Your task to perform on an android device: allow notifications from all sites in the chrome app Image 0: 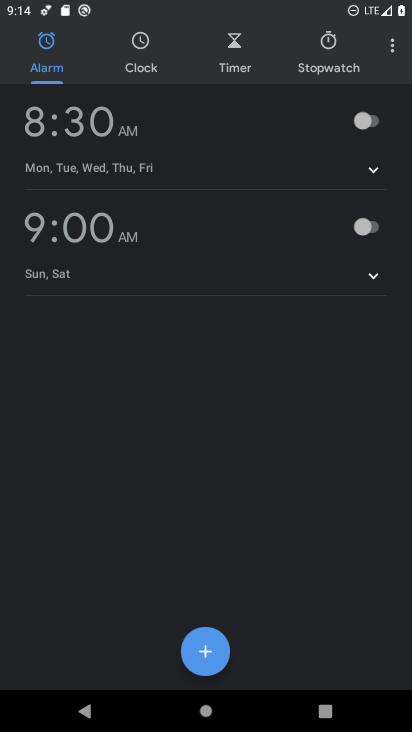
Step 0: press home button
Your task to perform on an android device: allow notifications from all sites in the chrome app Image 1: 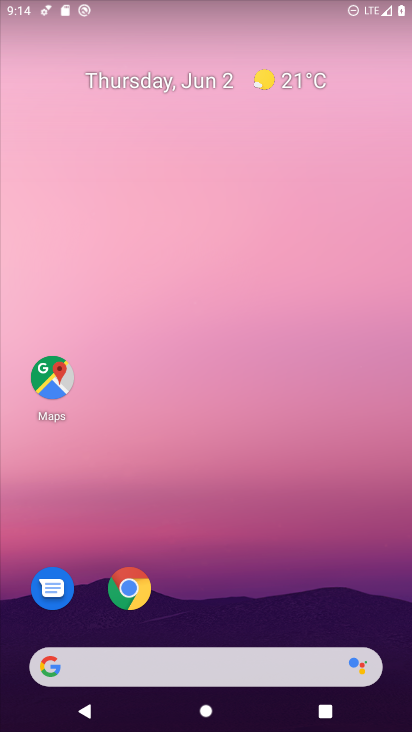
Step 1: drag from (262, 324) to (262, 284)
Your task to perform on an android device: allow notifications from all sites in the chrome app Image 2: 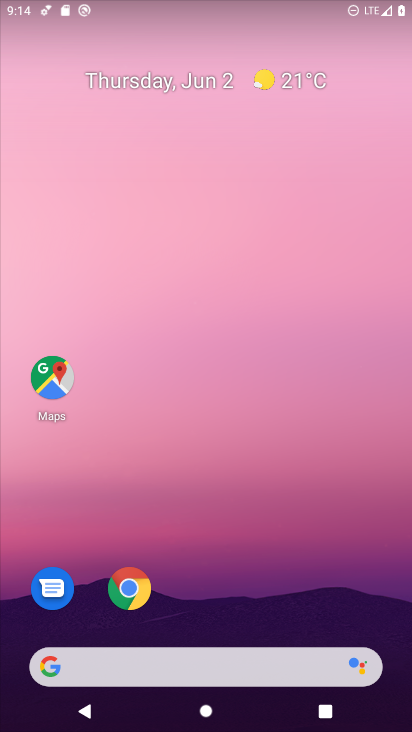
Step 2: click (135, 583)
Your task to perform on an android device: allow notifications from all sites in the chrome app Image 3: 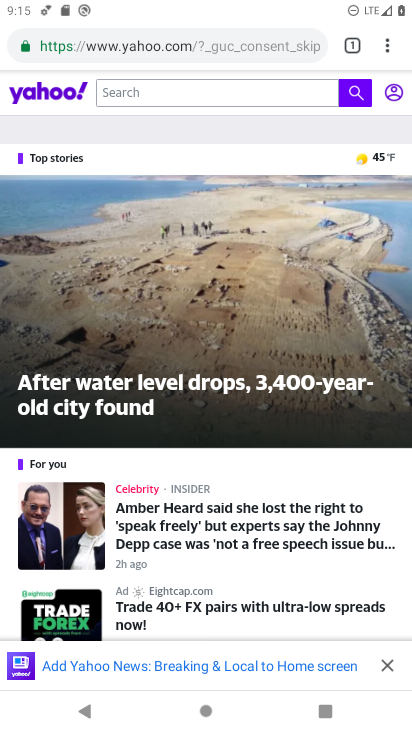
Step 3: click (395, 40)
Your task to perform on an android device: allow notifications from all sites in the chrome app Image 4: 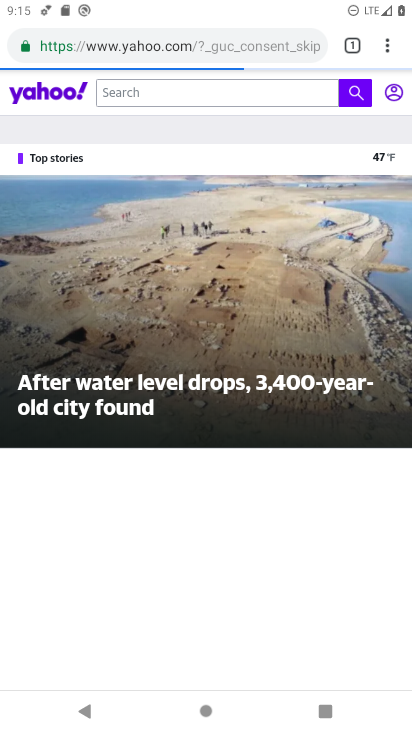
Step 4: click (396, 50)
Your task to perform on an android device: allow notifications from all sites in the chrome app Image 5: 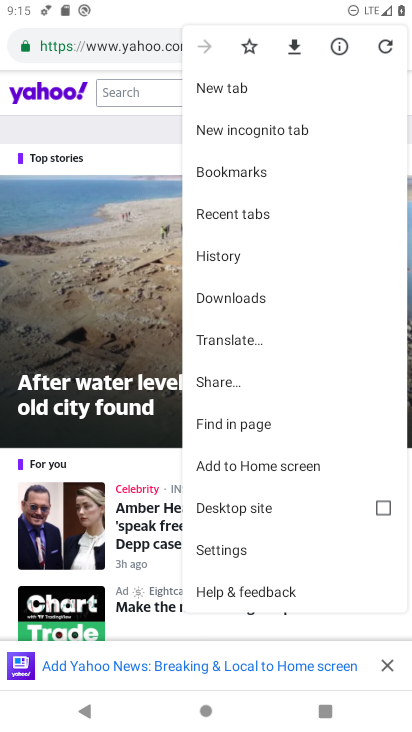
Step 5: click (235, 543)
Your task to perform on an android device: allow notifications from all sites in the chrome app Image 6: 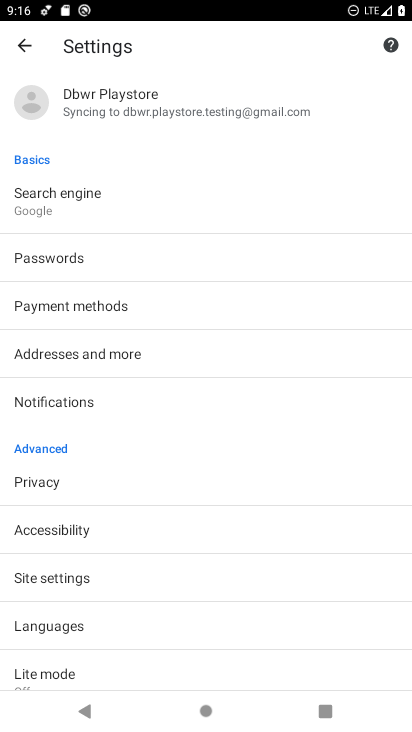
Step 6: click (100, 394)
Your task to perform on an android device: allow notifications from all sites in the chrome app Image 7: 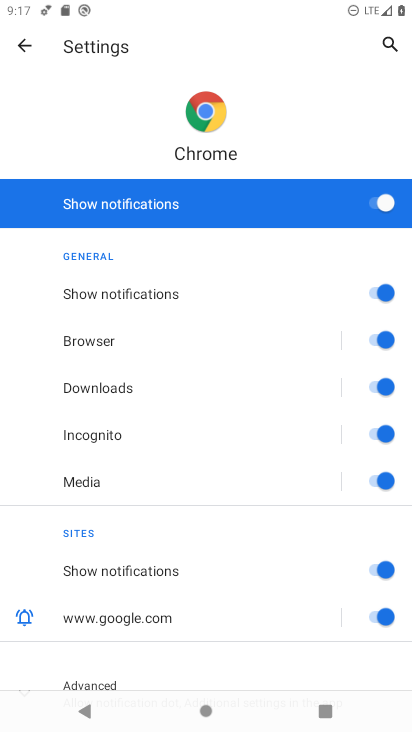
Step 7: click (186, 484)
Your task to perform on an android device: allow notifications from all sites in the chrome app Image 8: 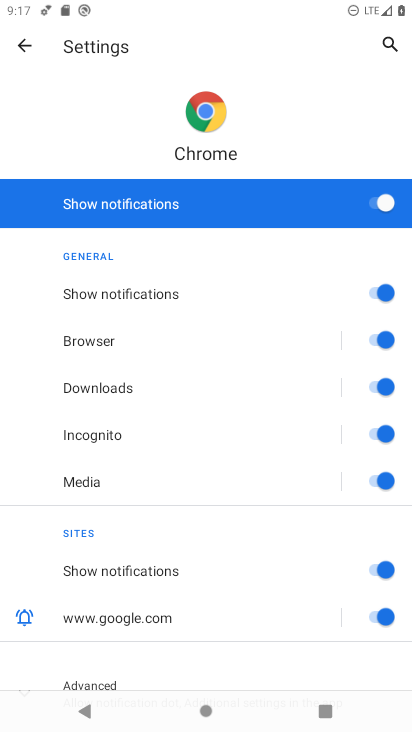
Step 8: task complete